Your task to perform on an android device: install app "Paramount+ | Peak Streaming" Image 0: 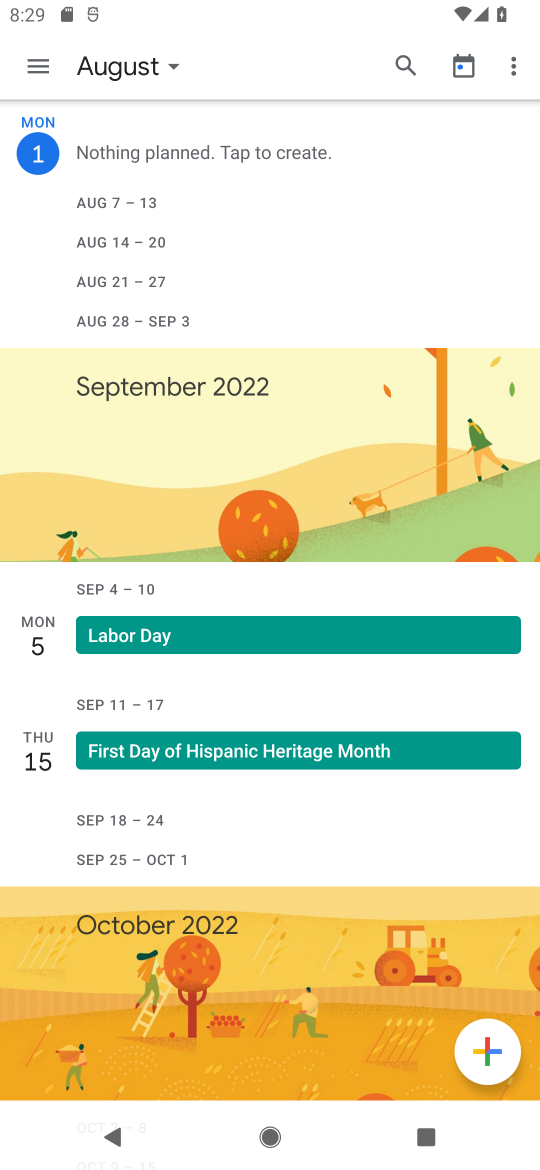
Step 0: press home button
Your task to perform on an android device: install app "Paramount+ | Peak Streaming" Image 1: 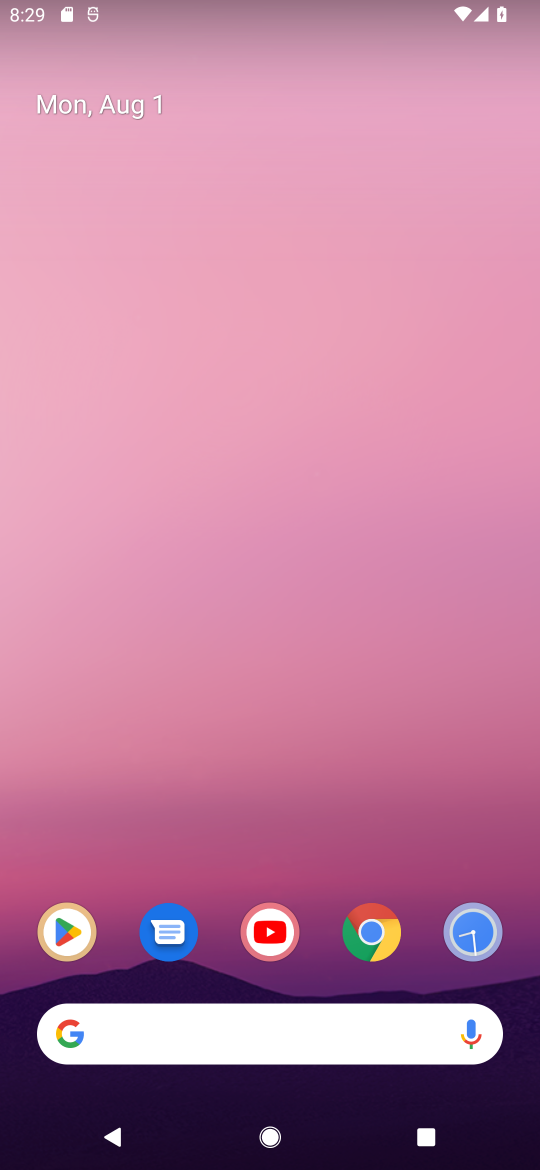
Step 1: click (75, 946)
Your task to perform on an android device: install app "Paramount+ | Peak Streaming" Image 2: 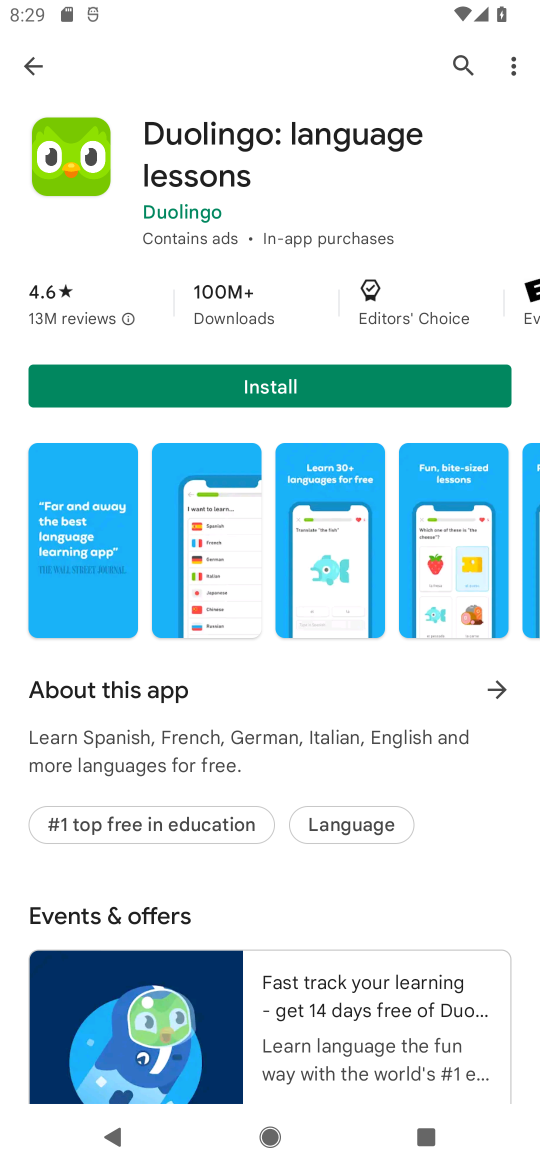
Step 2: click (455, 65)
Your task to perform on an android device: install app "Paramount+ | Peak Streaming" Image 3: 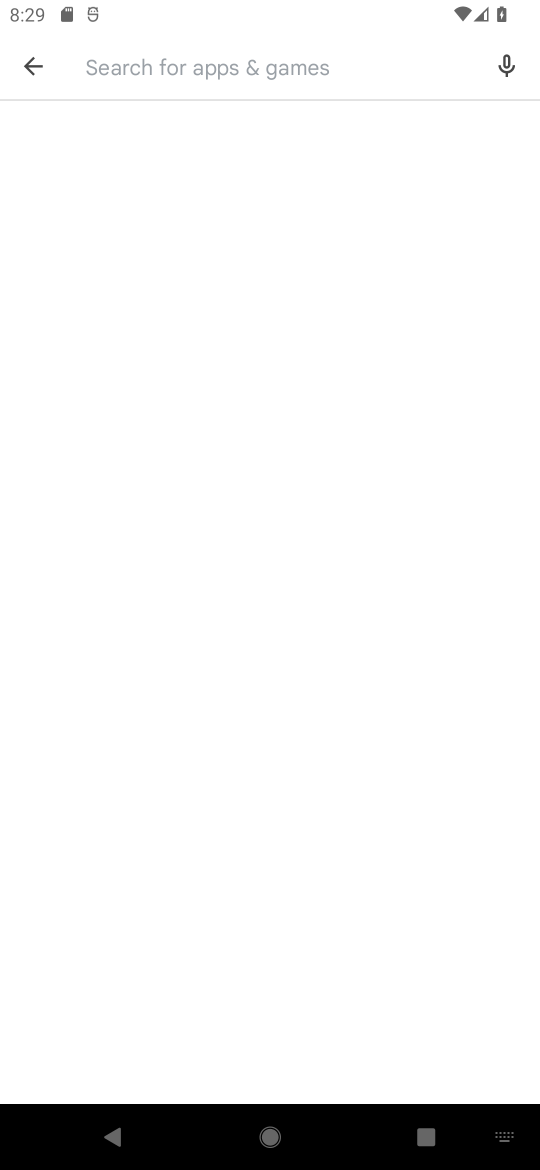
Step 3: type "paramount+ peak streaming"
Your task to perform on an android device: install app "Paramount+ | Peak Streaming" Image 4: 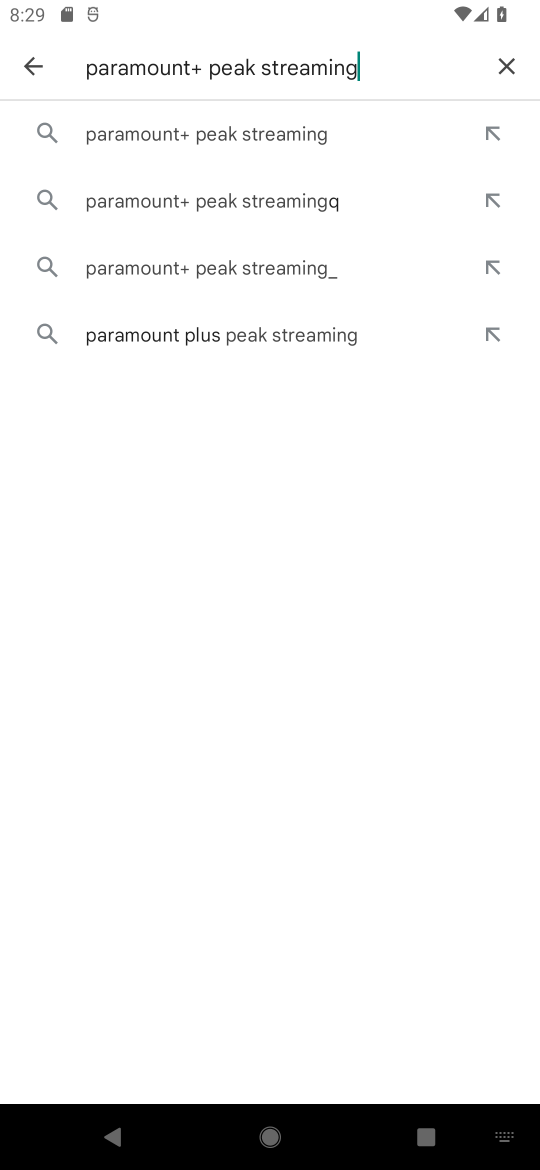
Step 4: click (289, 129)
Your task to perform on an android device: install app "Paramount+ | Peak Streaming" Image 5: 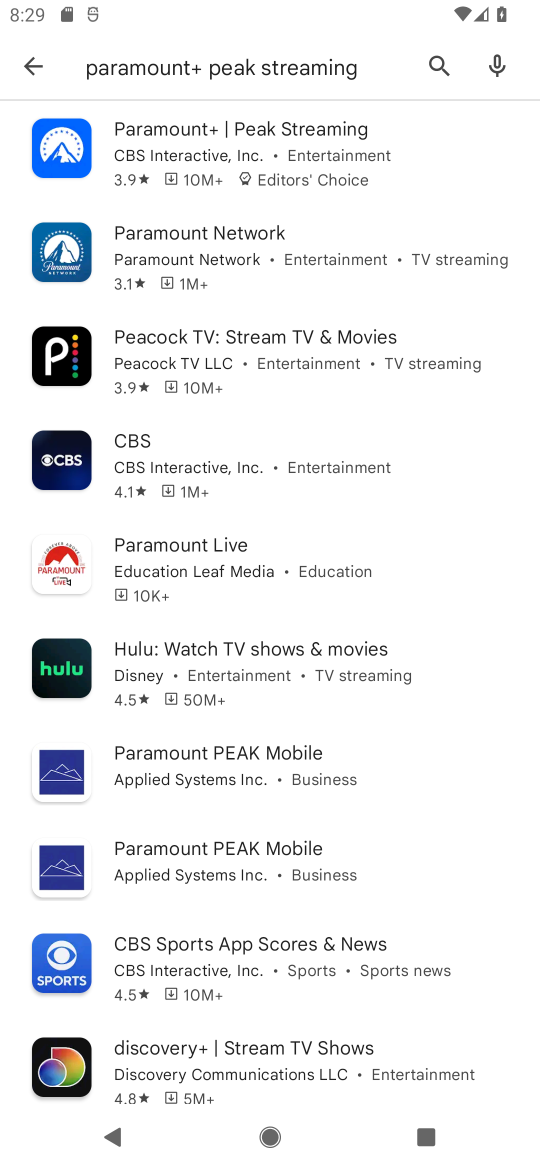
Step 5: click (287, 131)
Your task to perform on an android device: install app "Paramount+ | Peak Streaming" Image 6: 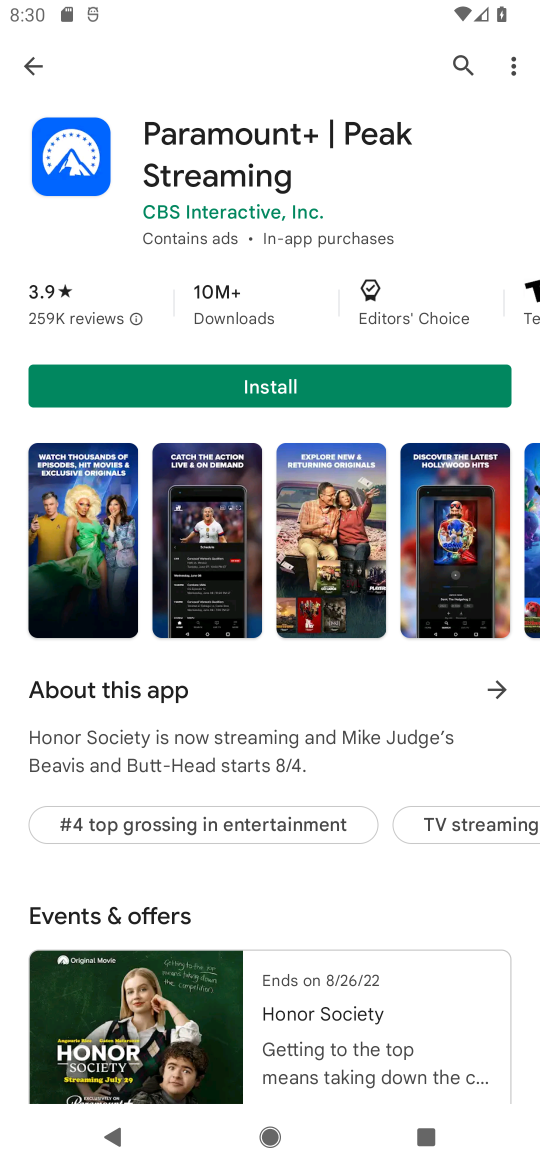
Step 6: click (383, 392)
Your task to perform on an android device: install app "Paramount+ | Peak Streaming" Image 7: 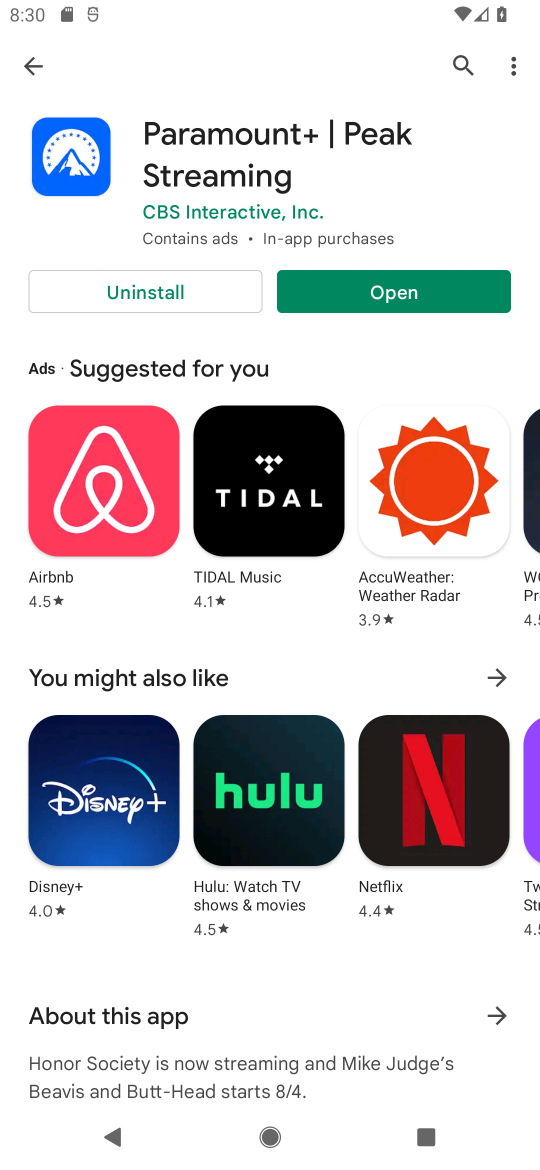
Step 7: task complete